Your task to perform on an android device: Open the calendar Image 0: 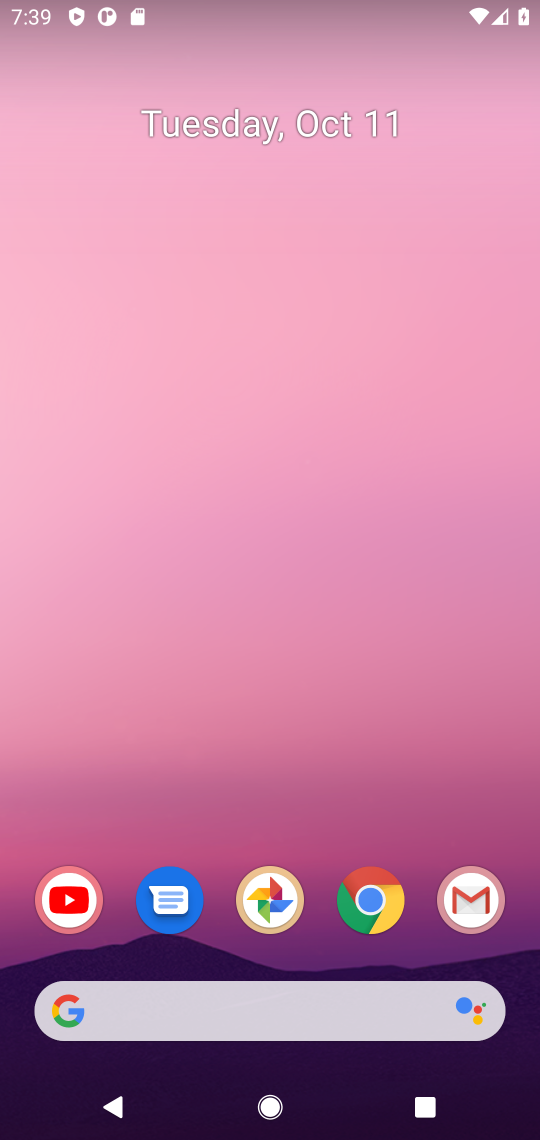
Step 0: drag from (348, 672) to (347, 47)
Your task to perform on an android device: Open the calendar Image 1: 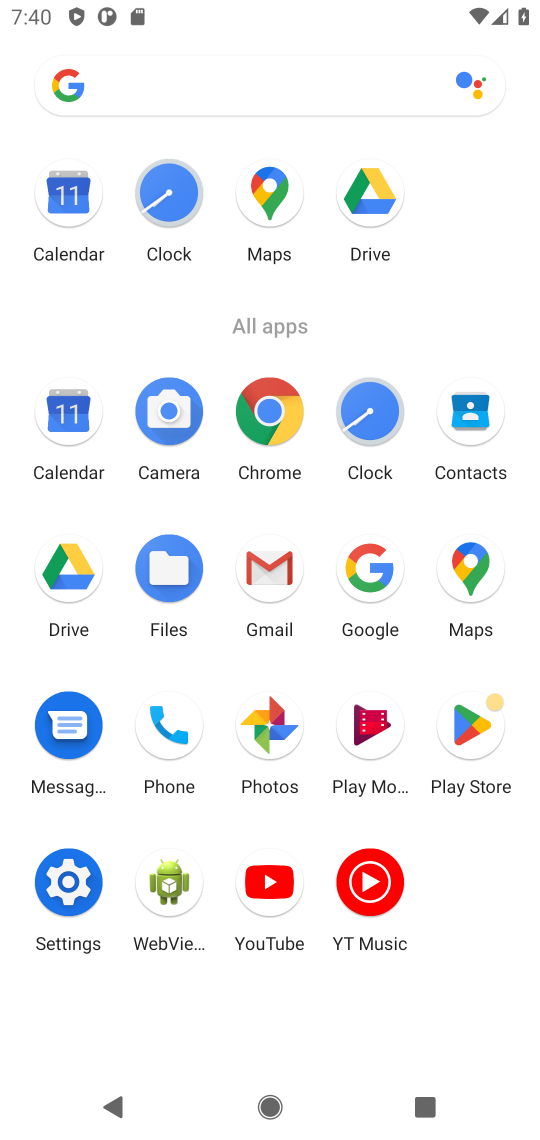
Step 1: click (89, 403)
Your task to perform on an android device: Open the calendar Image 2: 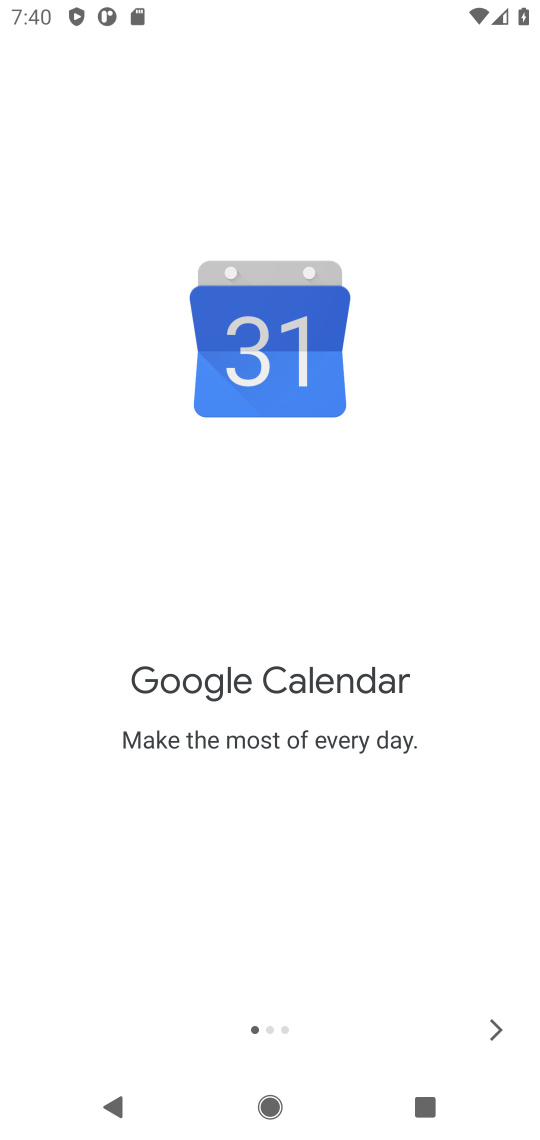
Step 2: click (500, 1036)
Your task to perform on an android device: Open the calendar Image 3: 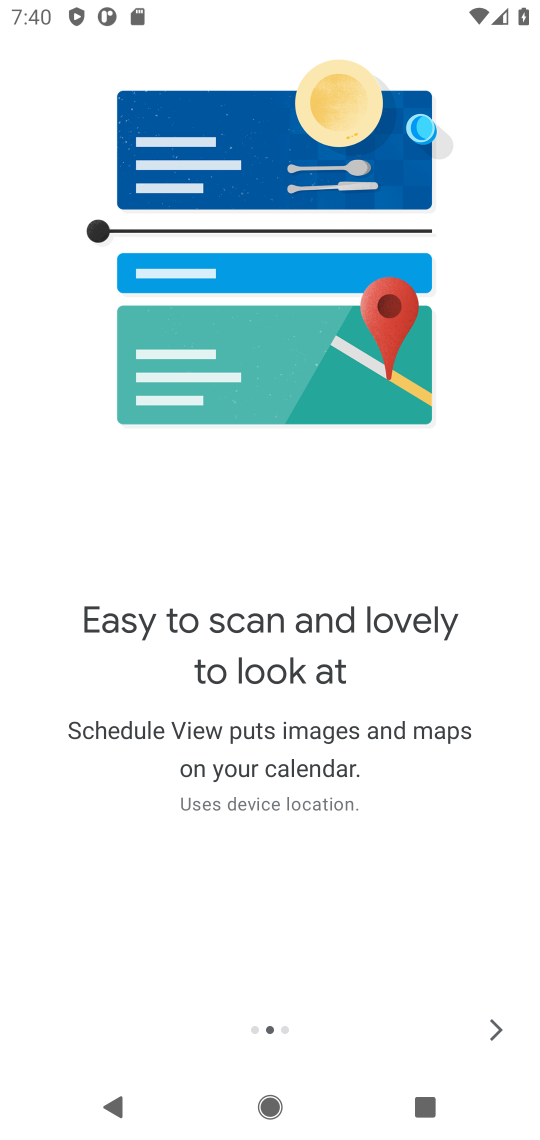
Step 3: click (500, 1036)
Your task to perform on an android device: Open the calendar Image 4: 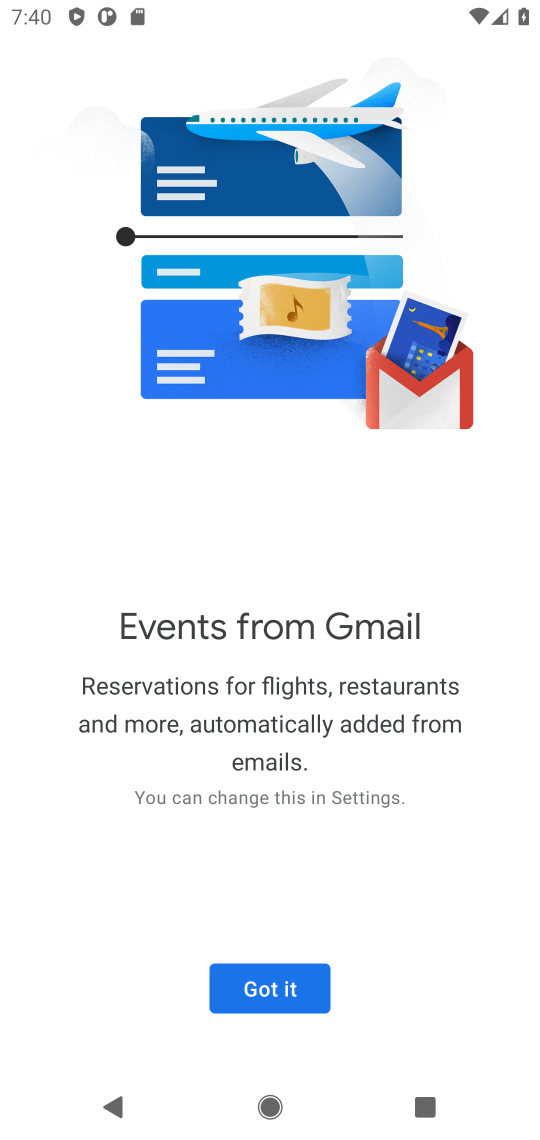
Step 4: click (255, 989)
Your task to perform on an android device: Open the calendar Image 5: 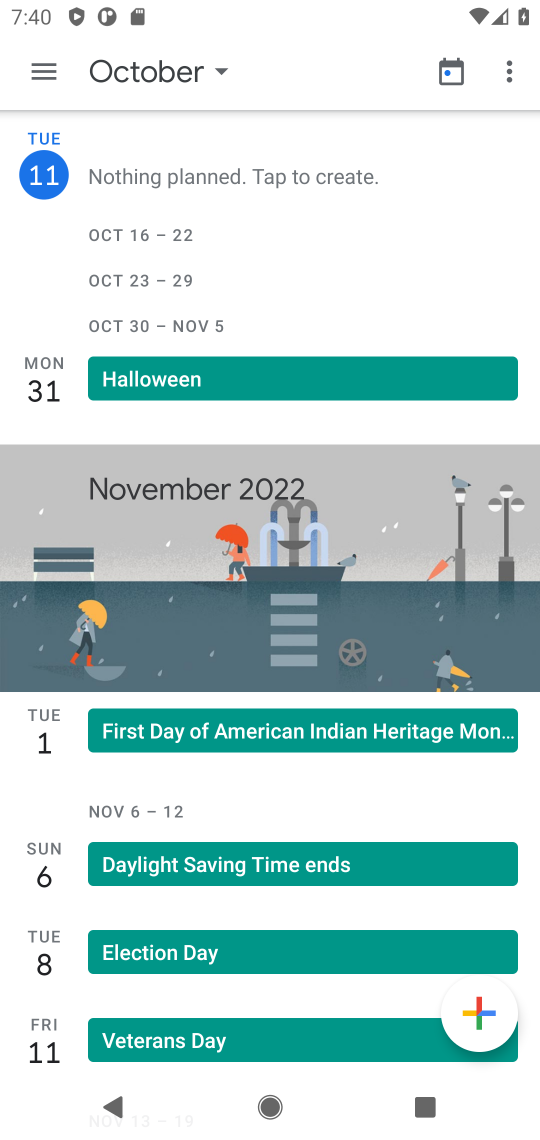
Step 5: task complete